Your task to perform on an android device: snooze an email in the gmail app Image 0: 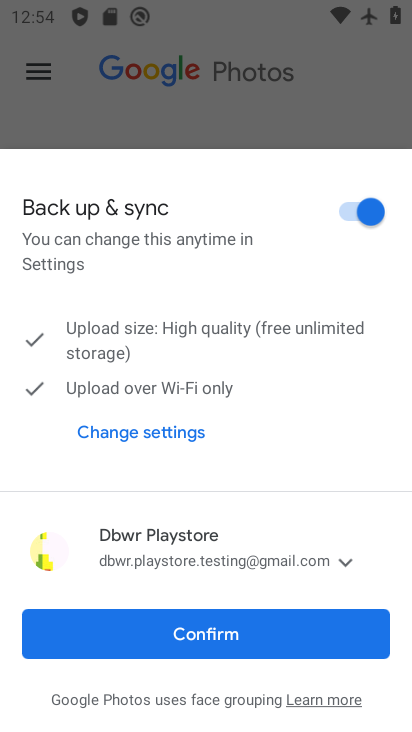
Step 0: click (236, 632)
Your task to perform on an android device: snooze an email in the gmail app Image 1: 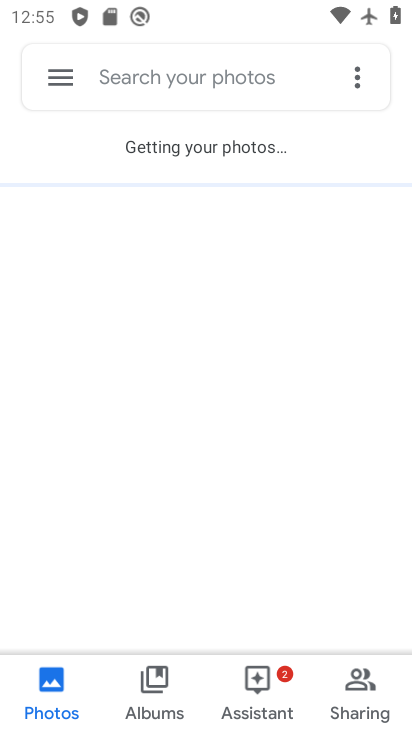
Step 1: press home button
Your task to perform on an android device: snooze an email in the gmail app Image 2: 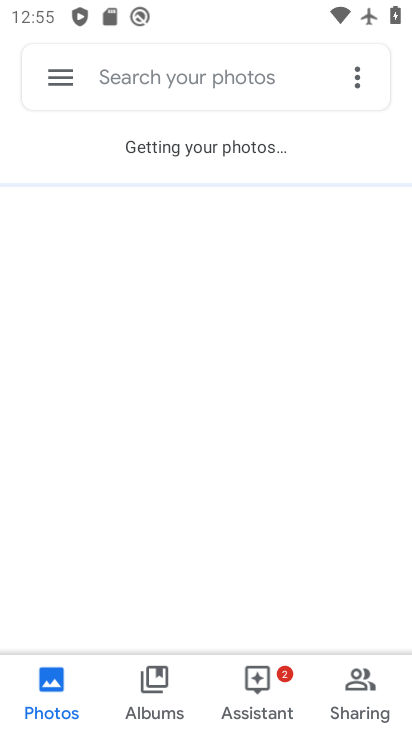
Step 2: press home button
Your task to perform on an android device: snooze an email in the gmail app Image 3: 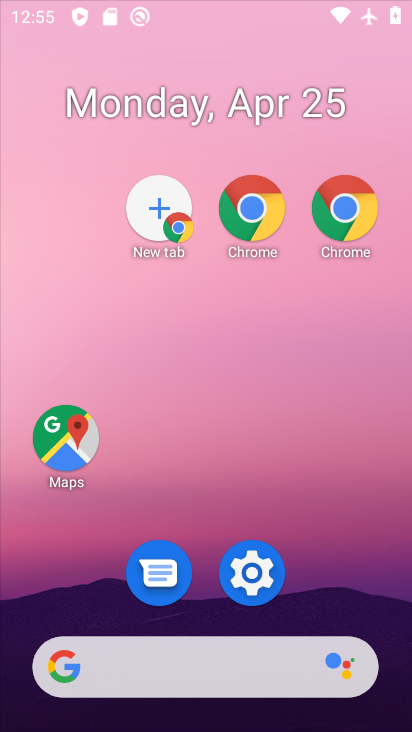
Step 3: press home button
Your task to perform on an android device: snooze an email in the gmail app Image 4: 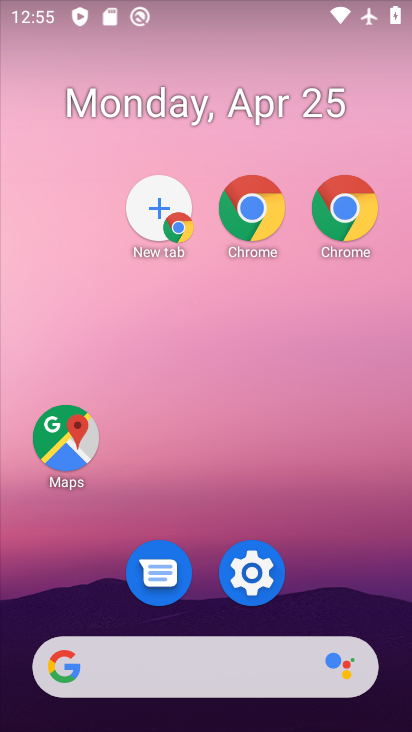
Step 4: drag from (262, 471) to (189, 168)
Your task to perform on an android device: snooze an email in the gmail app Image 5: 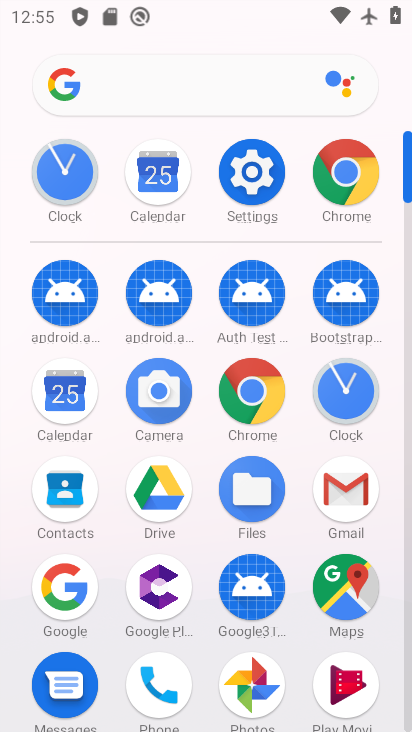
Step 5: click (350, 491)
Your task to perform on an android device: snooze an email in the gmail app Image 6: 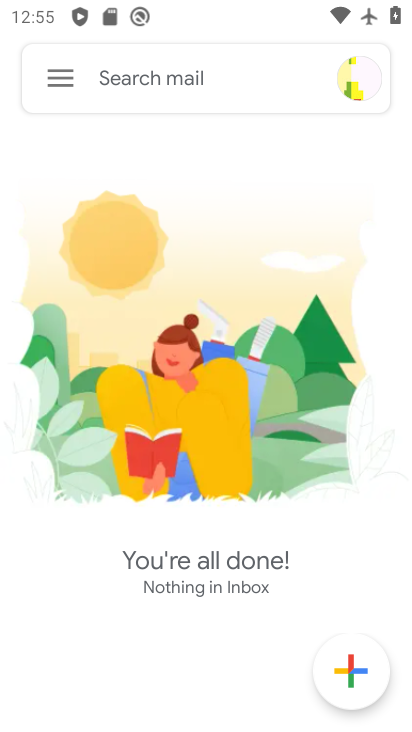
Step 6: click (62, 89)
Your task to perform on an android device: snooze an email in the gmail app Image 7: 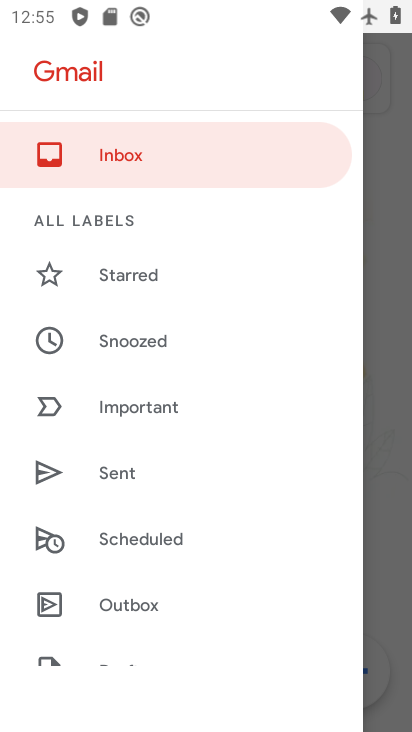
Step 7: drag from (127, 601) to (106, 142)
Your task to perform on an android device: snooze an email in the gmail app Image 8: 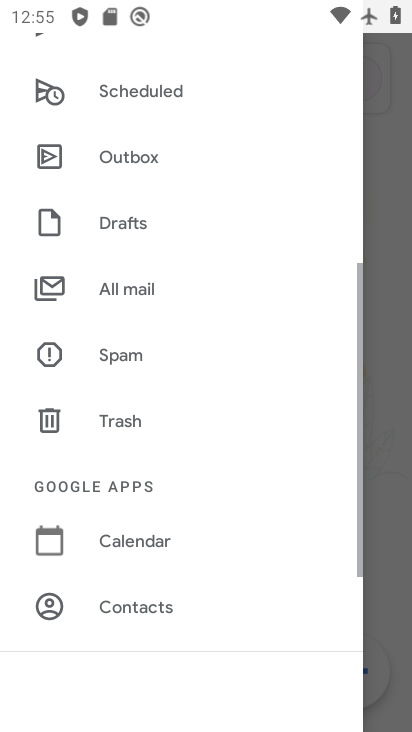
Step 8: drag from (156, 478) to (150, 94)
Your task to perform on an android device: snooze an email in the gmail app Image 9: 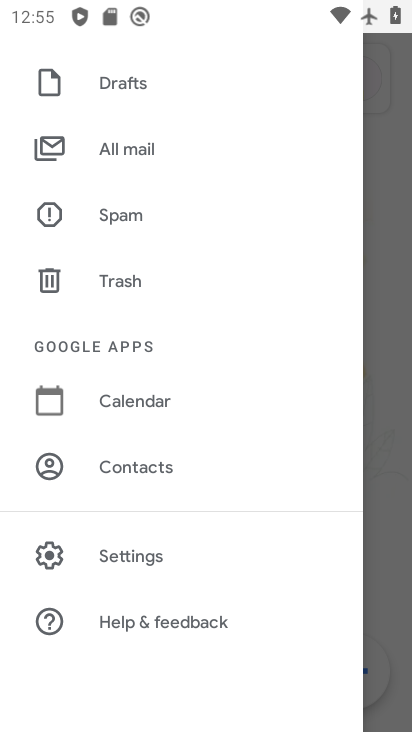
Step 9: click (130, 153)
Your task to perform on an android device: snooze an email in the gmail app Image 10: 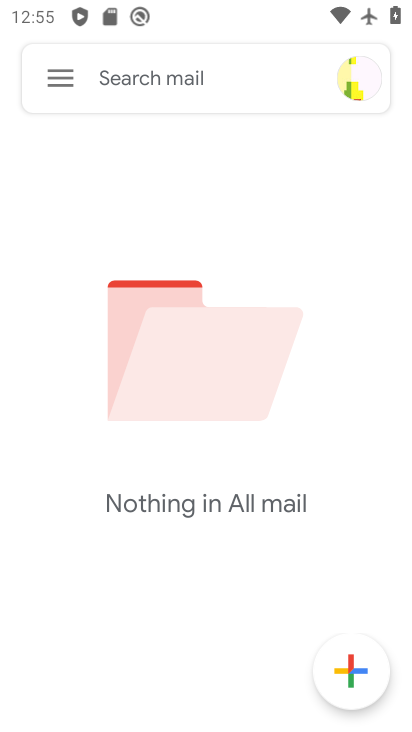
Step 10: task complete